Your task to perform on an android device: Go to Yahoo.com Image 0: 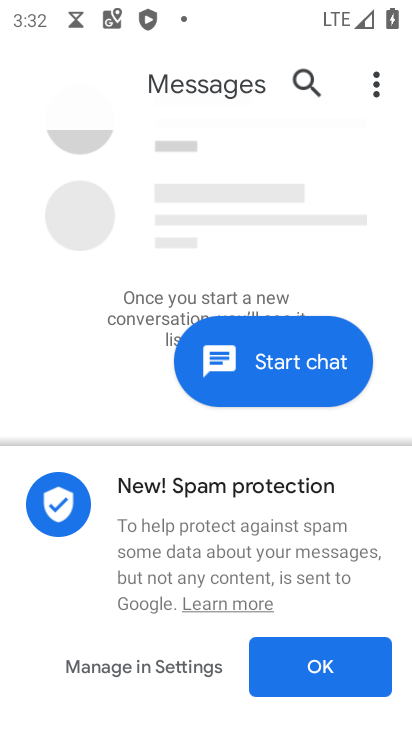
Step 0: press home button
Your task to perform on an android device: Go to Yahoo.com Image 1: 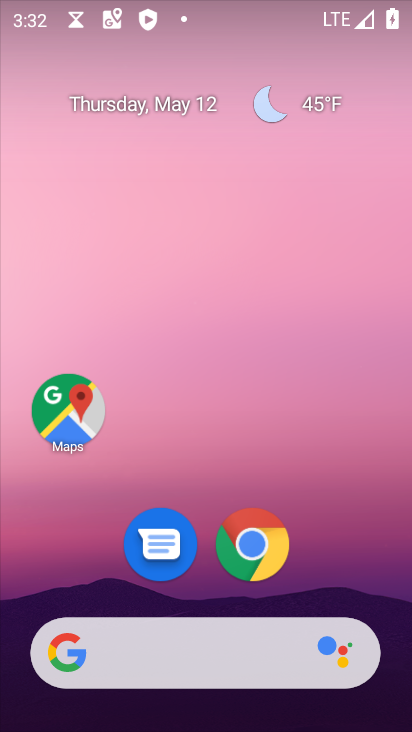
Step 1: click (255, 530)
Your task to perform on an android device: Go to Yahoo.com Image 2: 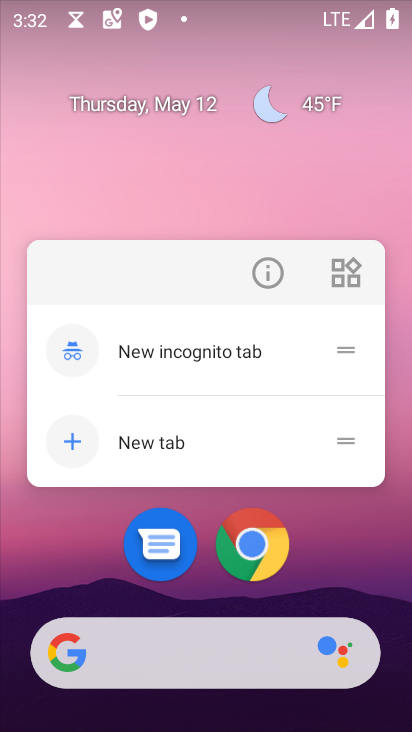
Step 2: click (254, 530)
Your task to perform on an android device: Go to Yahoo.com Image 3: 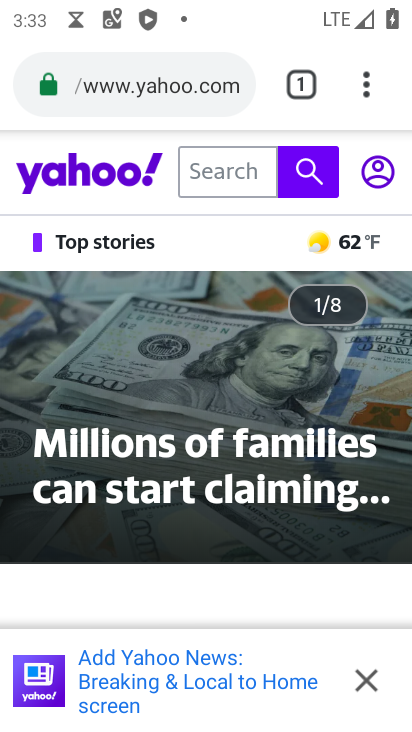
Step 3: task complete